Your task to perform on an android device: Go to ESPN.com Image 0: 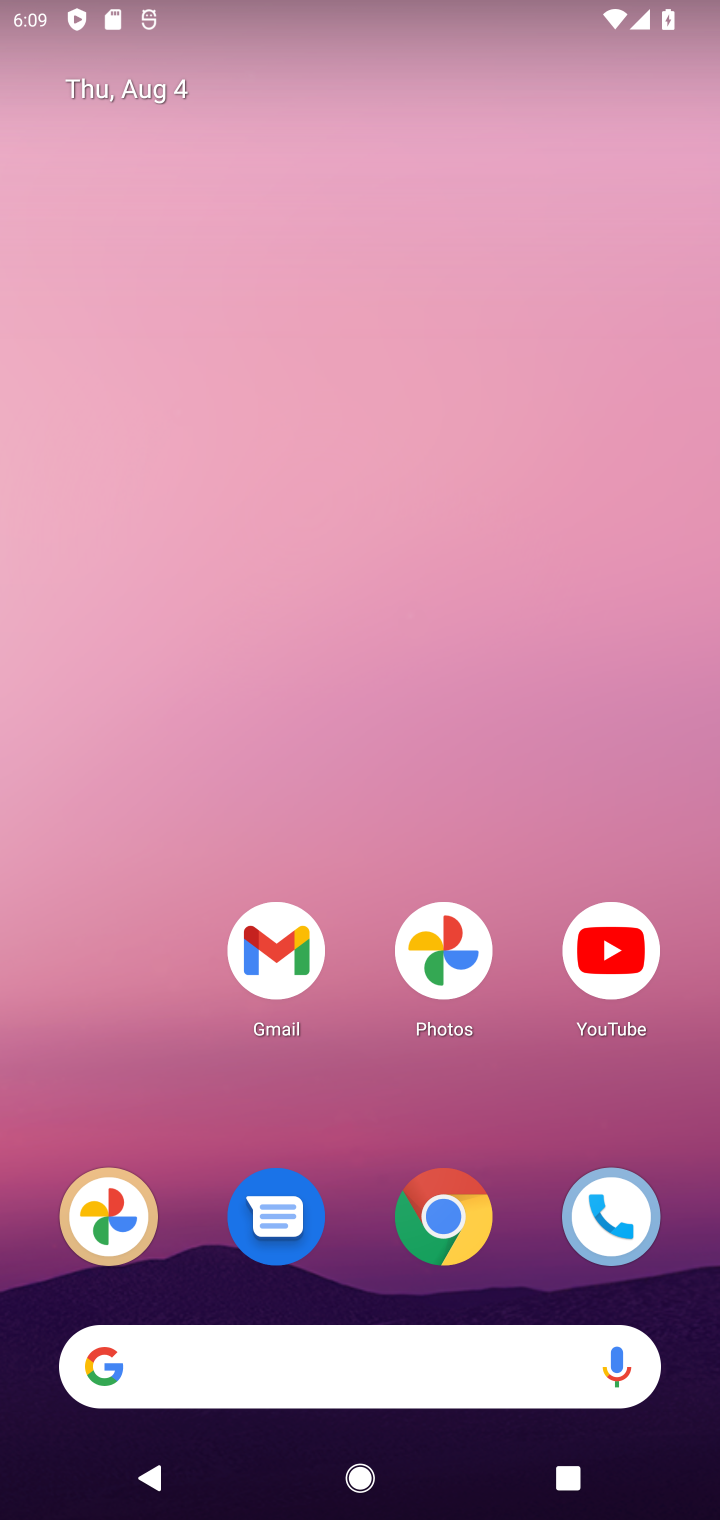
Step 0: click (460, 1190)
Your task to perform on an android device: Go to ESPN.com Image 1: 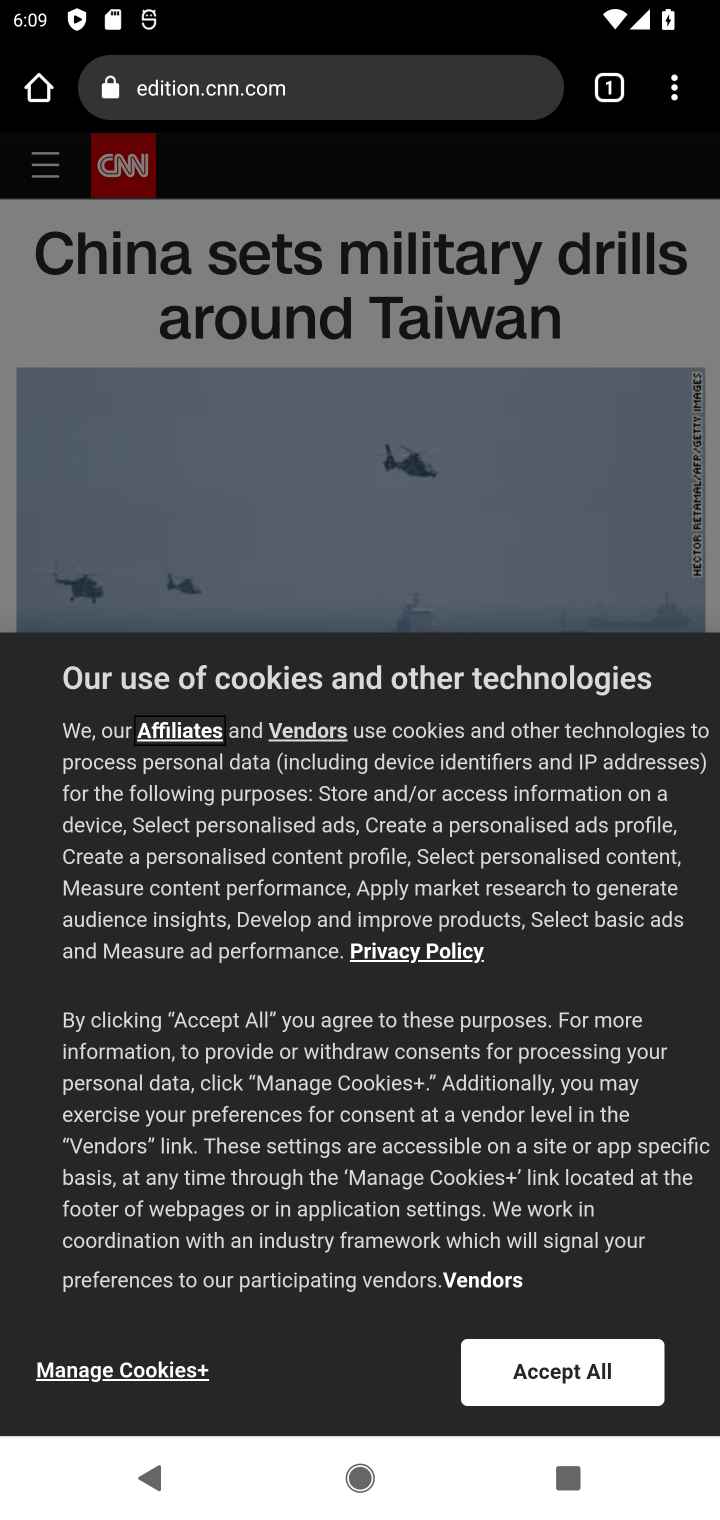
Step 1: click (413, 95)
Your task to perform on an android device: Go to ESPN.com Image 2: 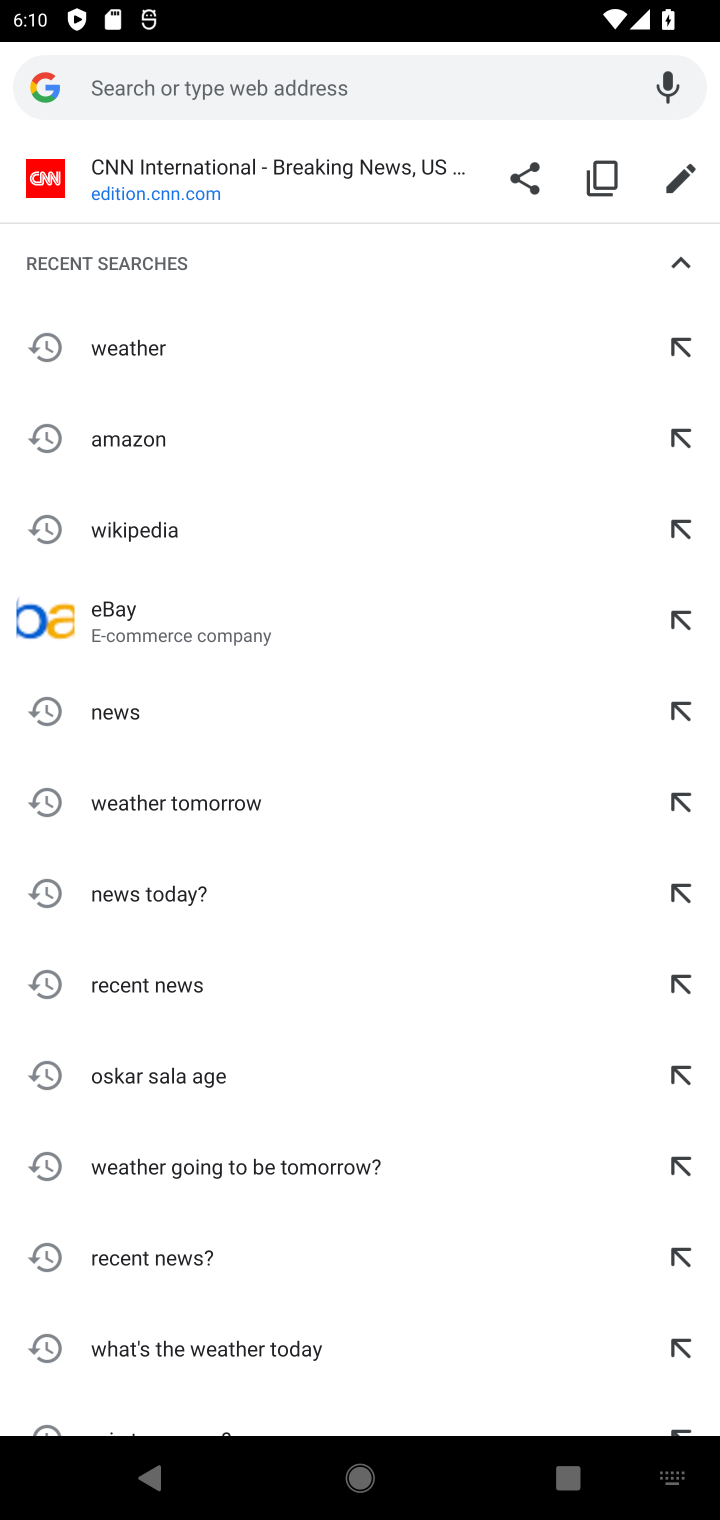
Step 2: type "espn.com"
Your task to perform on an android device: Go to ESPN.com Image 3: 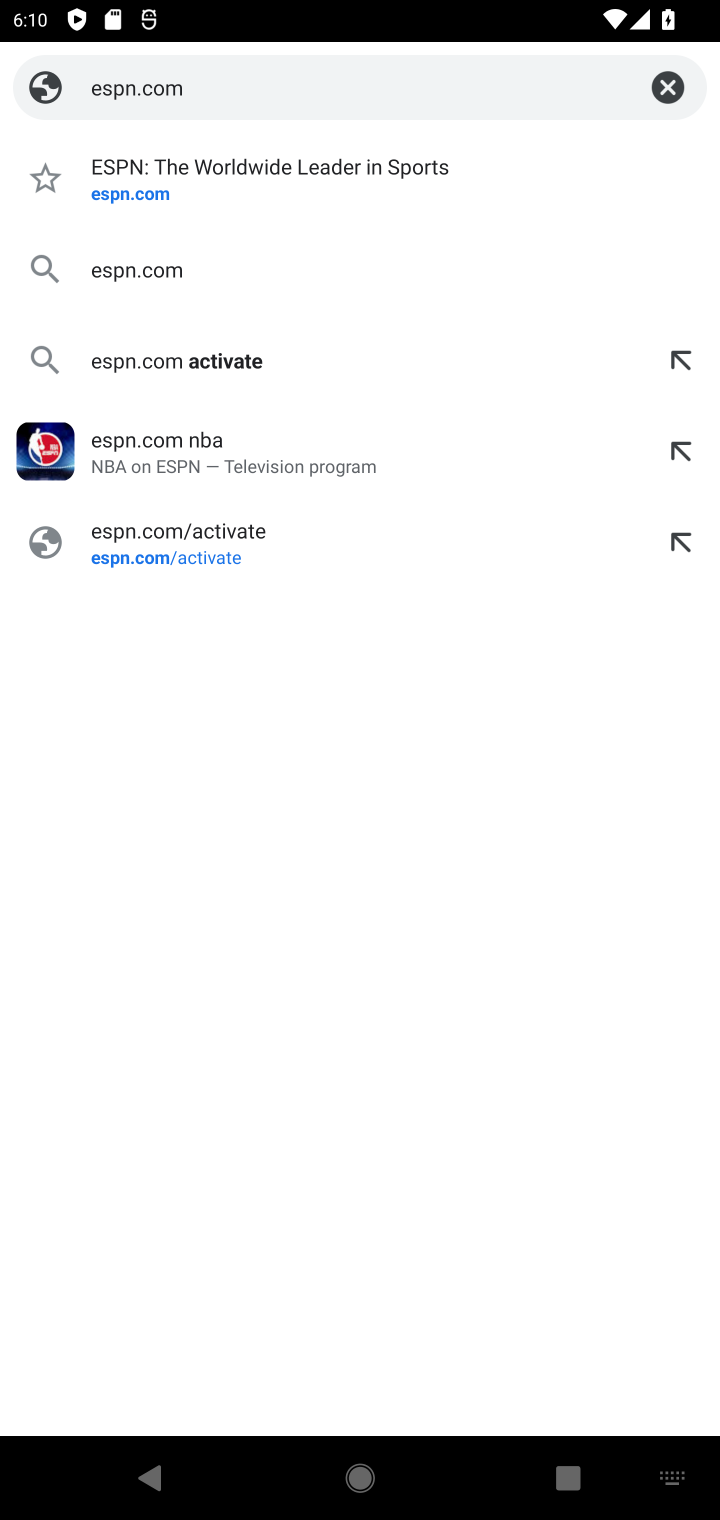
Step 3: click (216, 168)
Your task to perform on an android device: Go to ESPN.com Image 4: 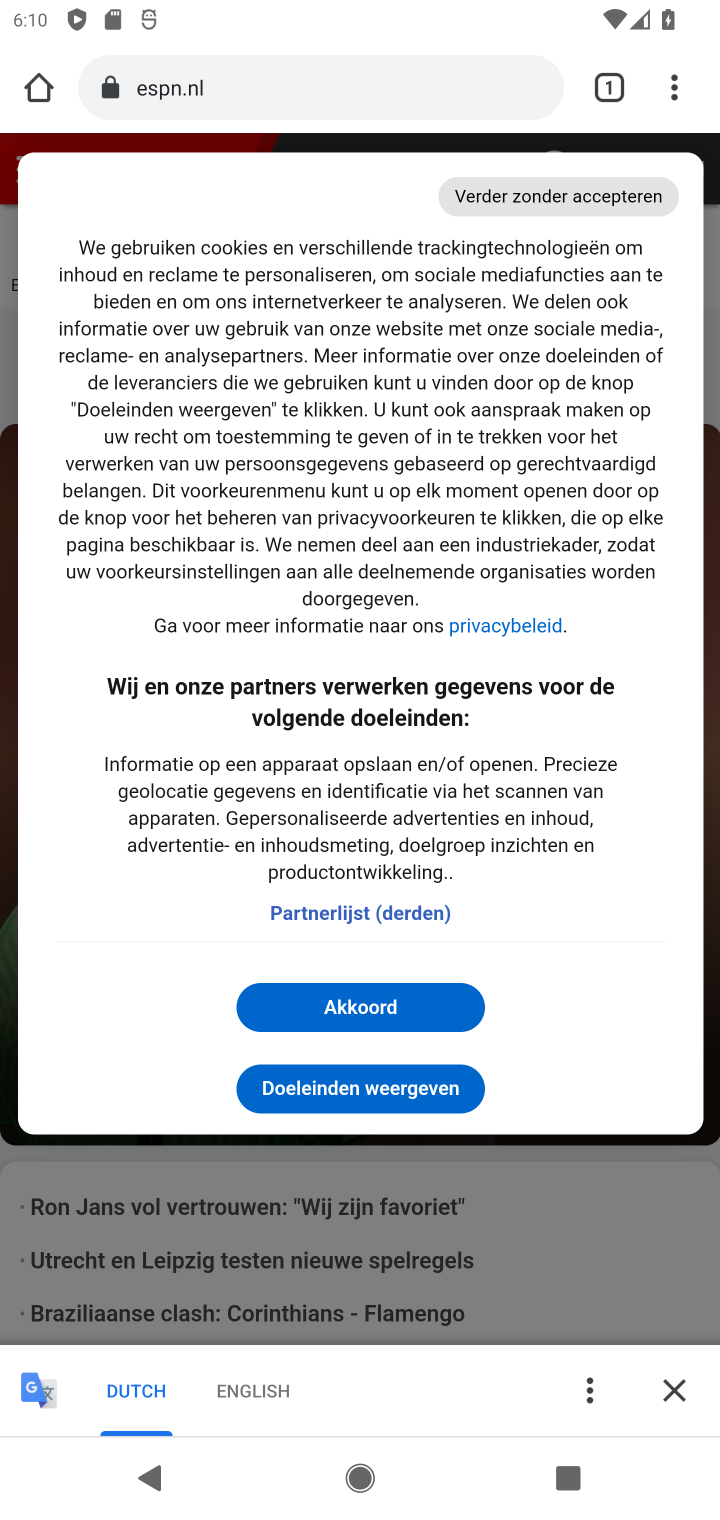
Step 4: task complete